Your task to perform on an android device: Open Wikipedia Image 0: 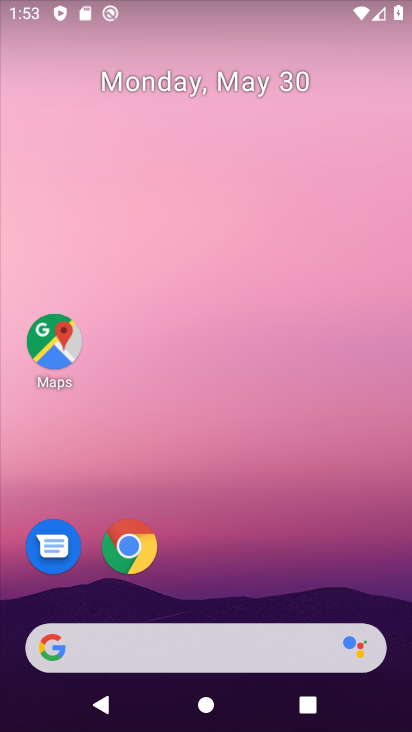
Step 0: press home button
Your task to perform on an android device: Open Wikipedia Image 1: 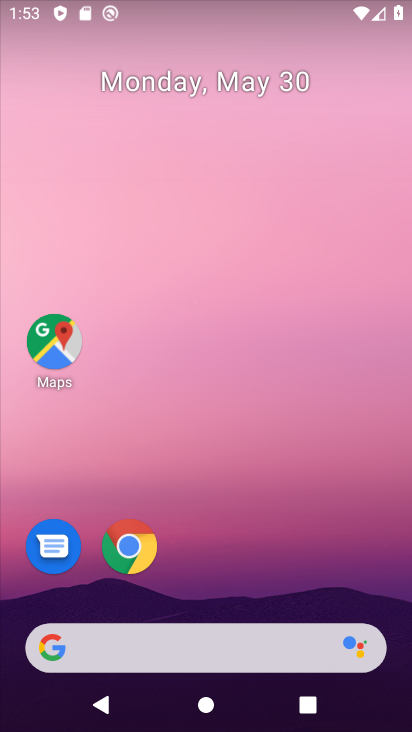
Step 1: drag from (239, 586) to (256, 56)
Your task to perform on an android device: Open Wikipedia Image 2: 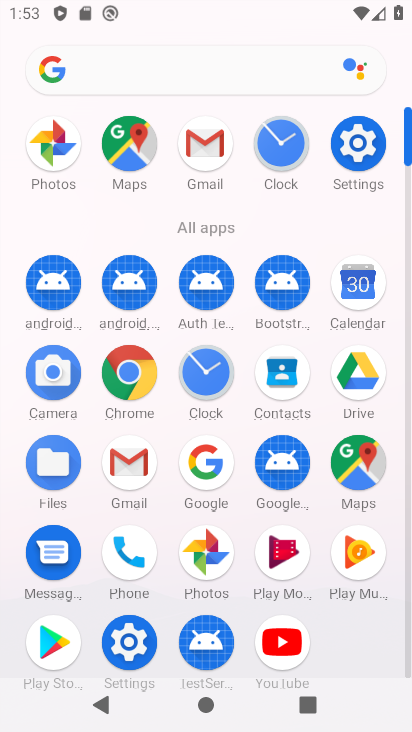
Step 2: click (120, 373)
Your task to perform on an android device: Open Wikipedia Image 3: 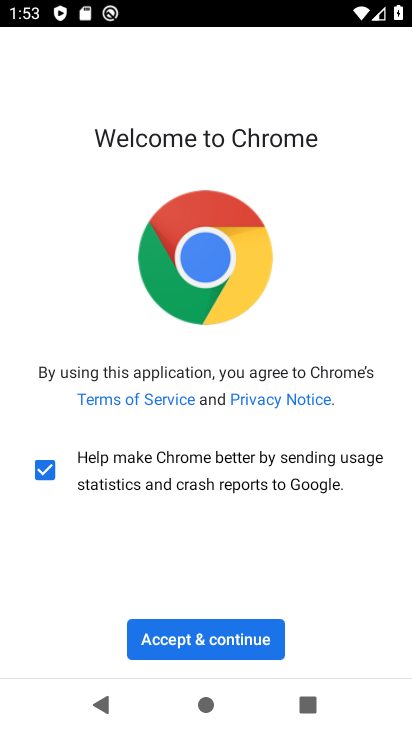
Step 3: click (201, 637)
Your task to perform on an android device: Open Wikipedia Image 4: 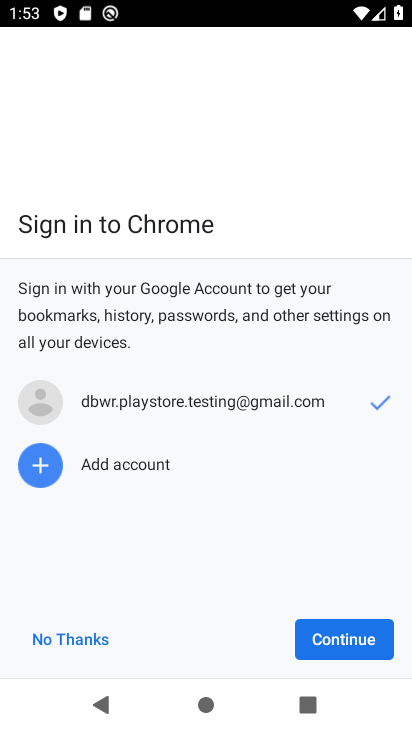
Step 4: click (342, 637)
Your task to perform on an android device: Open Wikipedia Image 5: 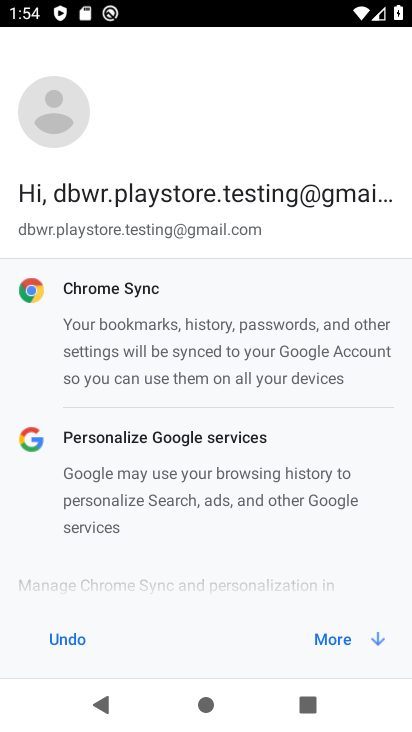
Step 5: click (343, 629)
Your task to perform on an android device: Open Wikipedia Image 6: 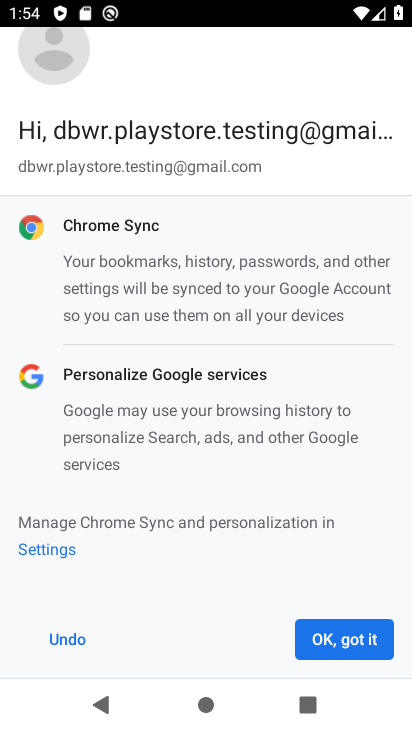
Step 6: click (343, 629)
Your task to perform on an android device: Open Wikipedia Image 7: 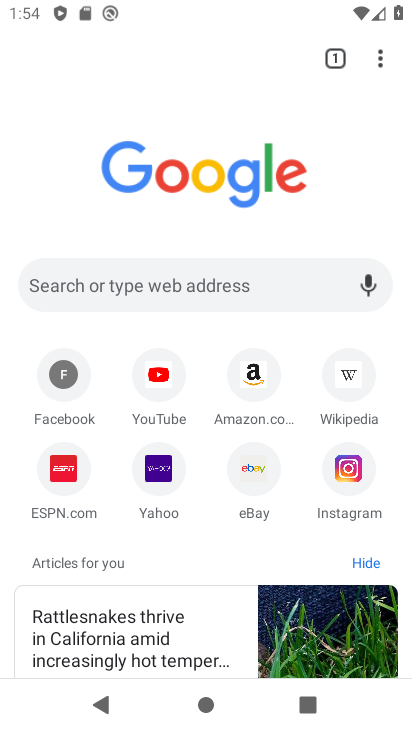
Step 7: click (347, 371)
Your task to perform on an android device: Open Wikipedia Image 8: 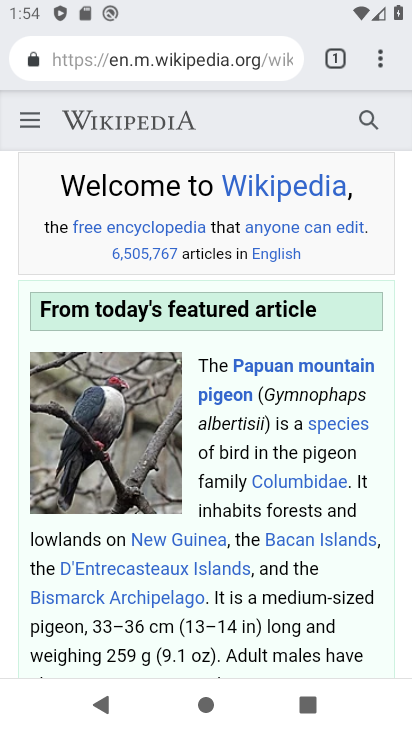
Step 8: task complete